Your task to perform on an android device: toggle improve location accuracy Image 0: 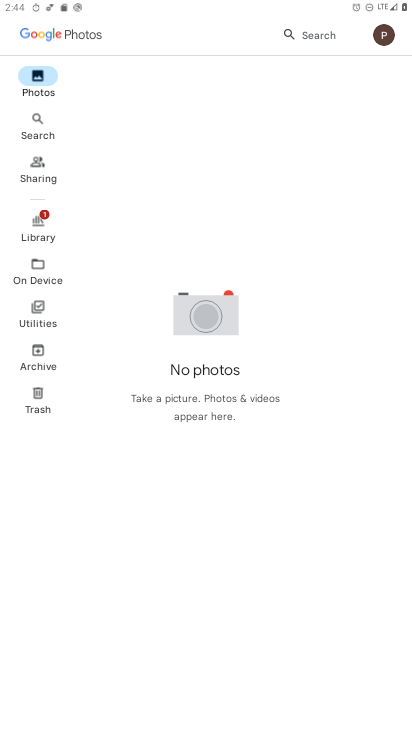
Step 0: press home button
Your task to perform on an android device: toggle improve location accuracy Image 1: 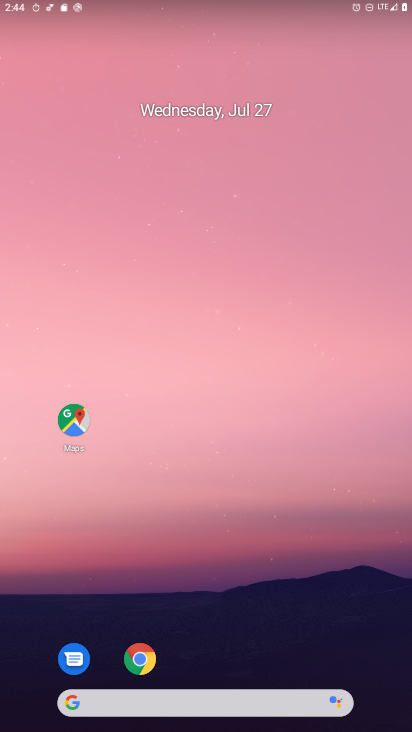
Step 1: drag from (289, 580) to (260, 85)
Your task to perform on an android device: toggle improve location accuracy Image 2: 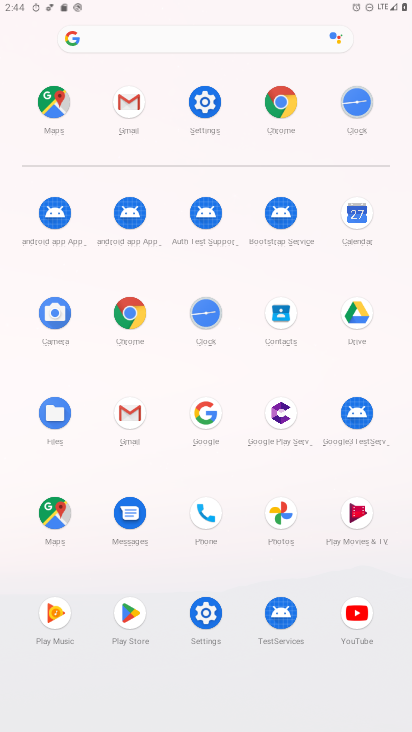
Step 2: click (203, 98)
Your task to perform on an android device: toggle improve location accuracy Image 3: 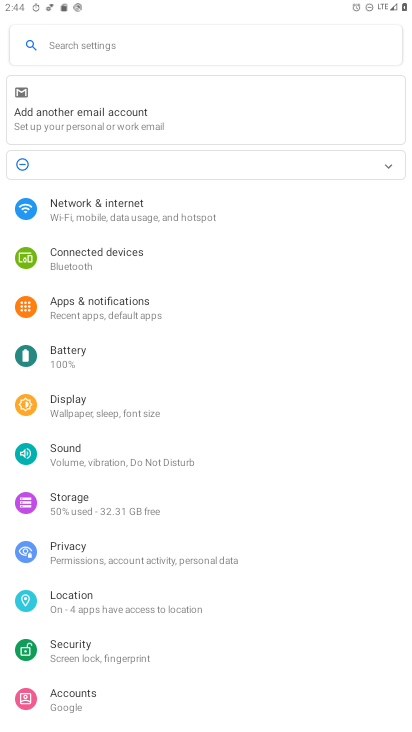
Step 3: click (100, 593)
Your task to perform on an android device: toggle improve location accuracy Image 4: 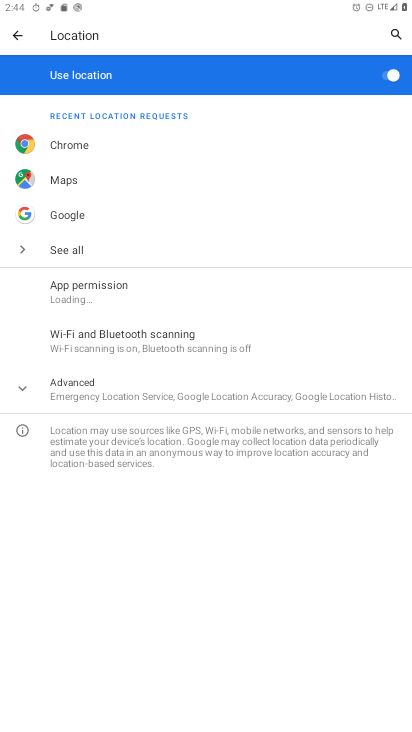
Step 4: click (158, 393)
Your task to perform on an android device: toggle improve location accuracy Image 5: 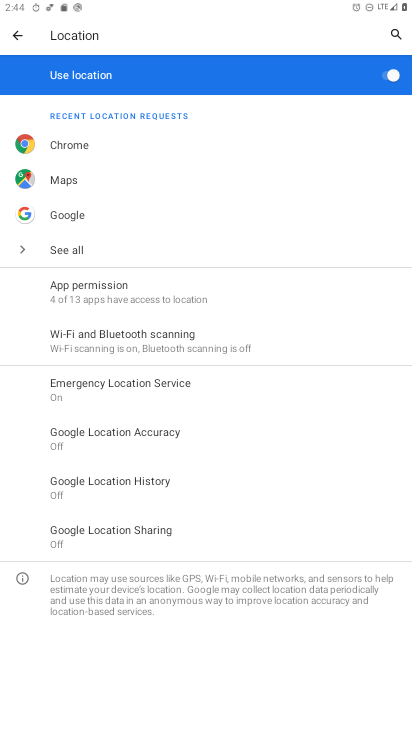
Step 5: click (172, 441)
Your task to perform on an android device: toggle improve location accuracy Image 6: 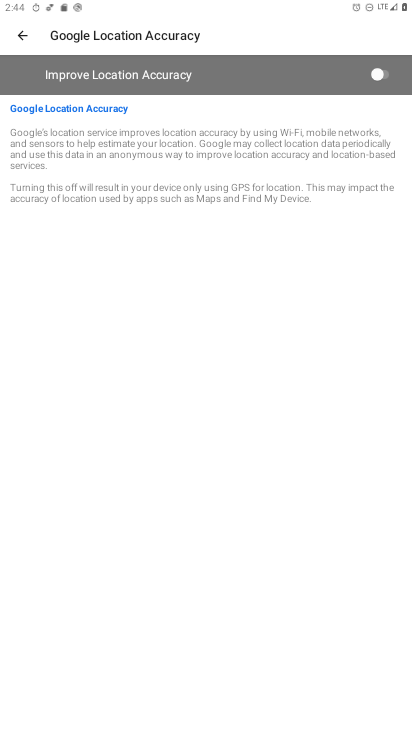
Step 6: click (374, 72)
Your task to perform on an android device: toggle improve location accuracy Image 7: 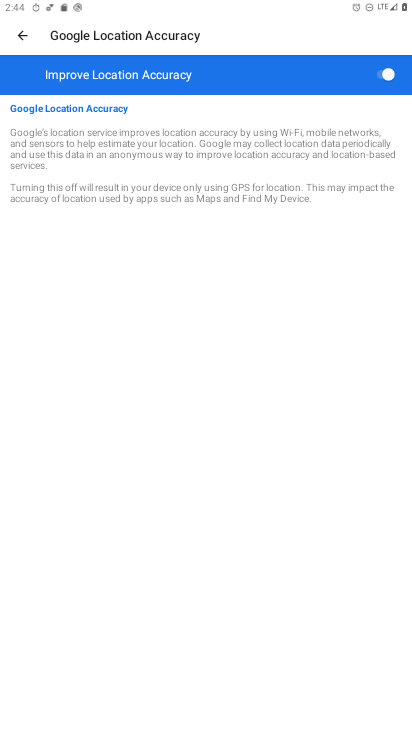
Step 7: task complete